Your task to perform on an android device: delete the emails in spam in the gmail app Image 0: 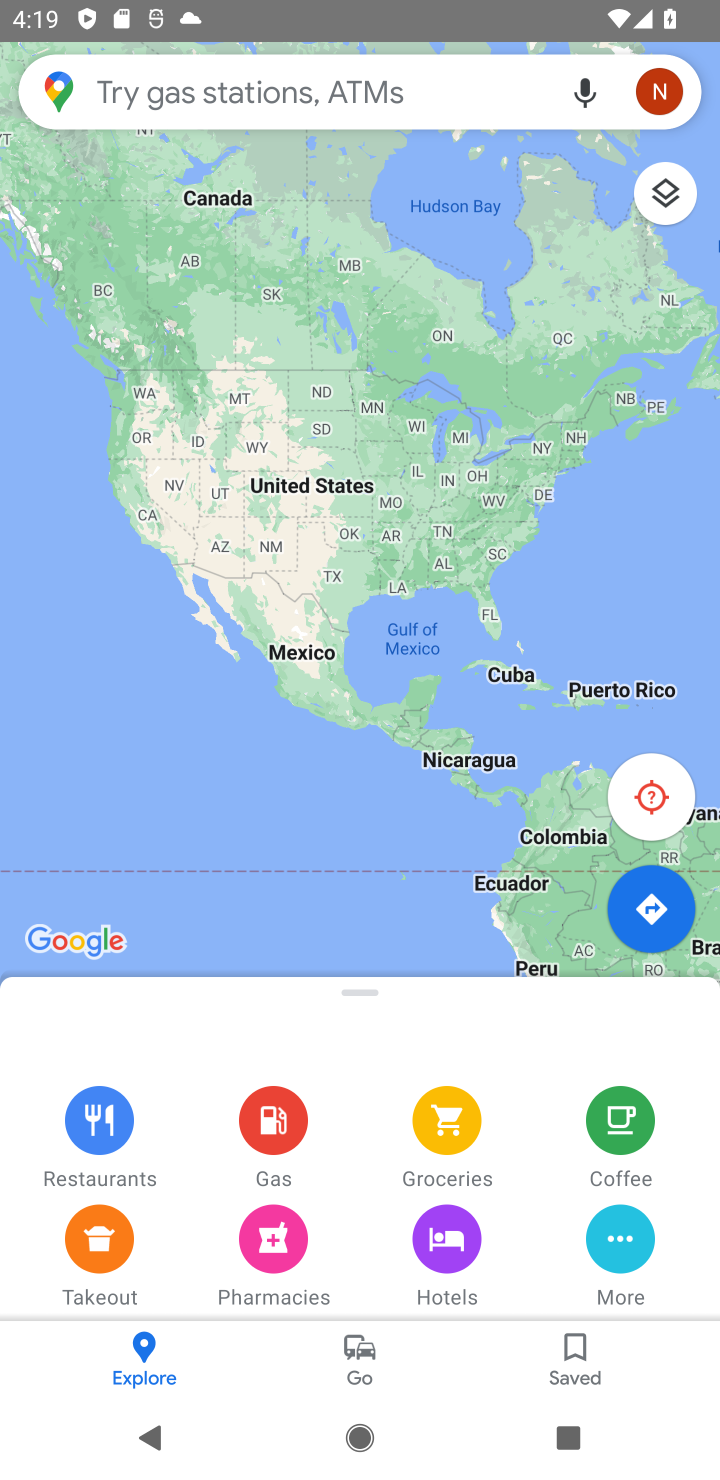
Step 0: press home button
Your task to perform on an android device: delete the emails in spam in the gmail app Image 1: 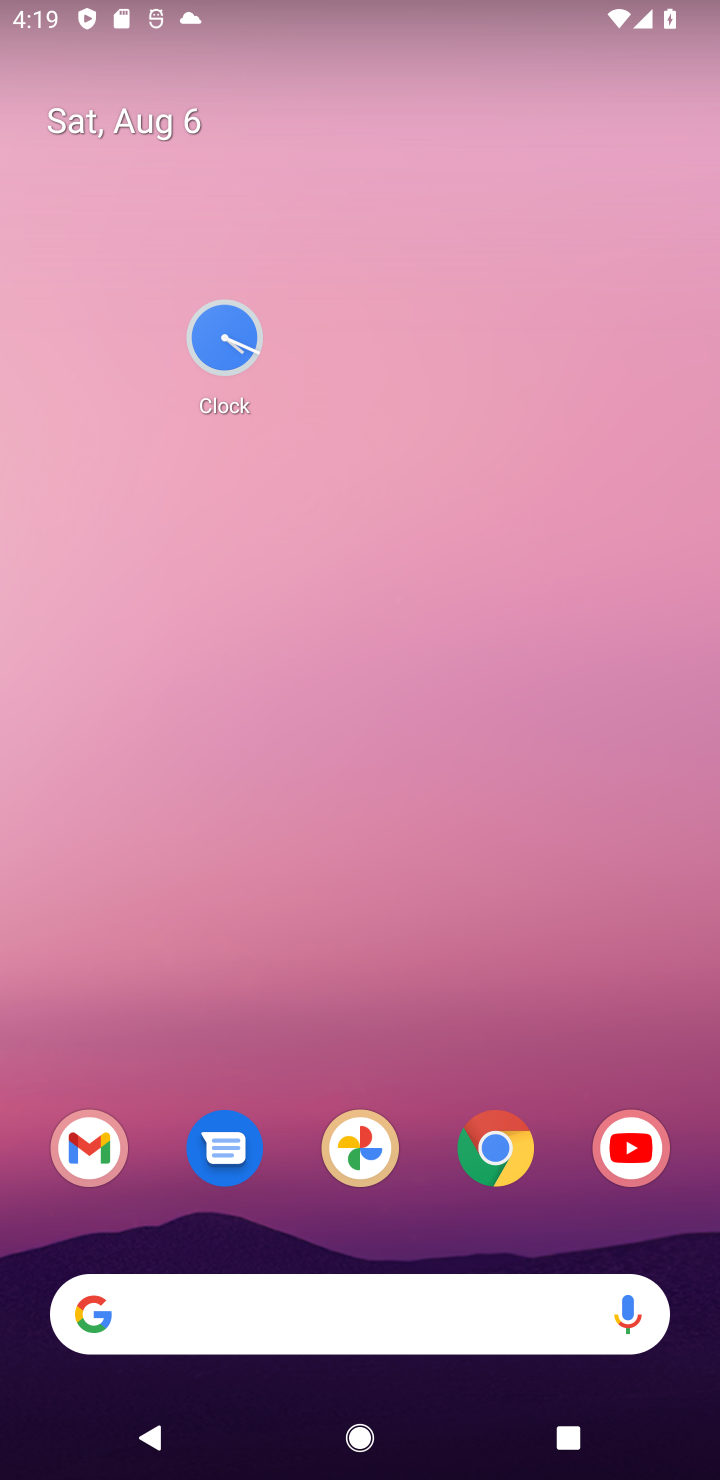
Step 1: drag from (361, 1172) to (421, 11)
Your task to perform on an android device: delete the emails in spam in the gmail app Image 2: 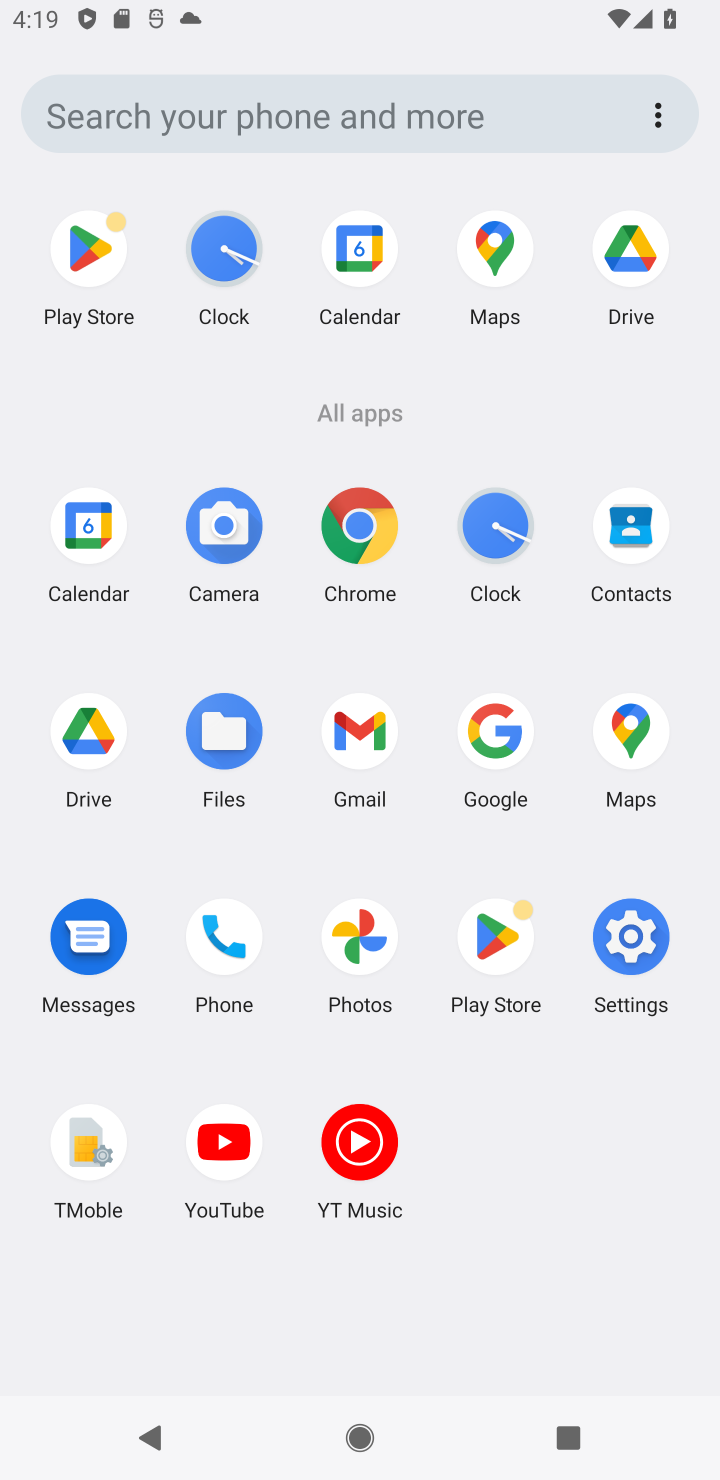
Step 2: click (346, 732)
Your task to perform on an android device: delete the emails in spam in the gmail app Image 3: 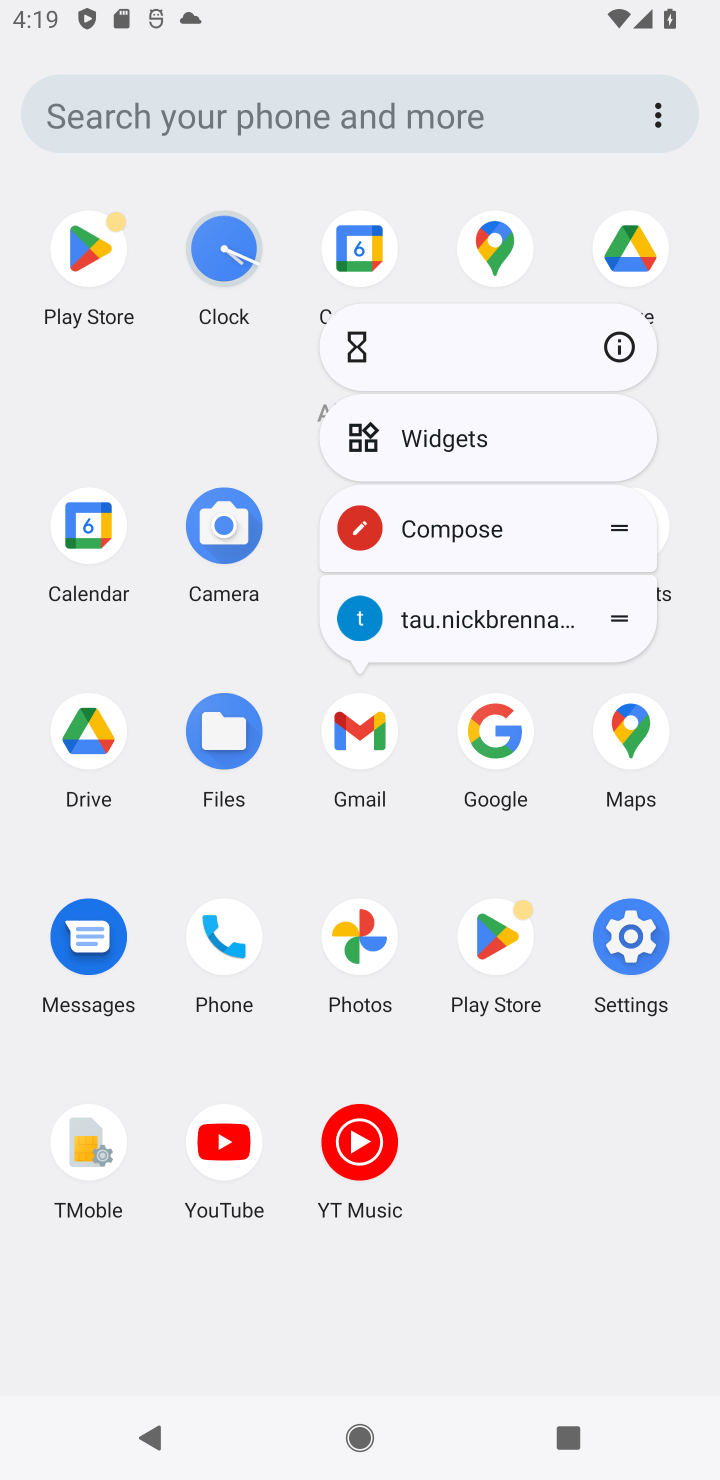
Step 3: click (616, 335)
Your task to perform on an android device: delete the emails in spam in the gmail app Image 4: 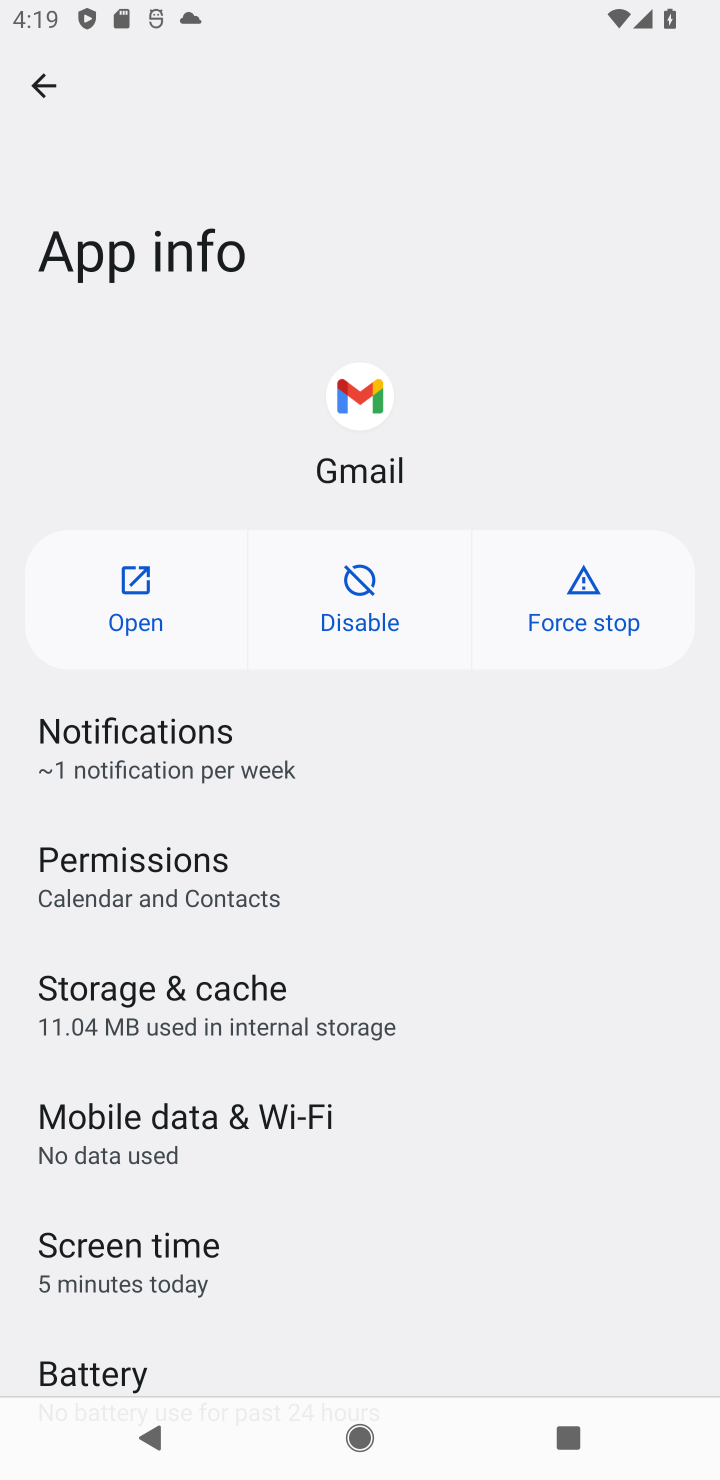
Step 4: click (123, 586)
Your task to perform on an android device: delete the emails in spam in the gmail app Image 5: 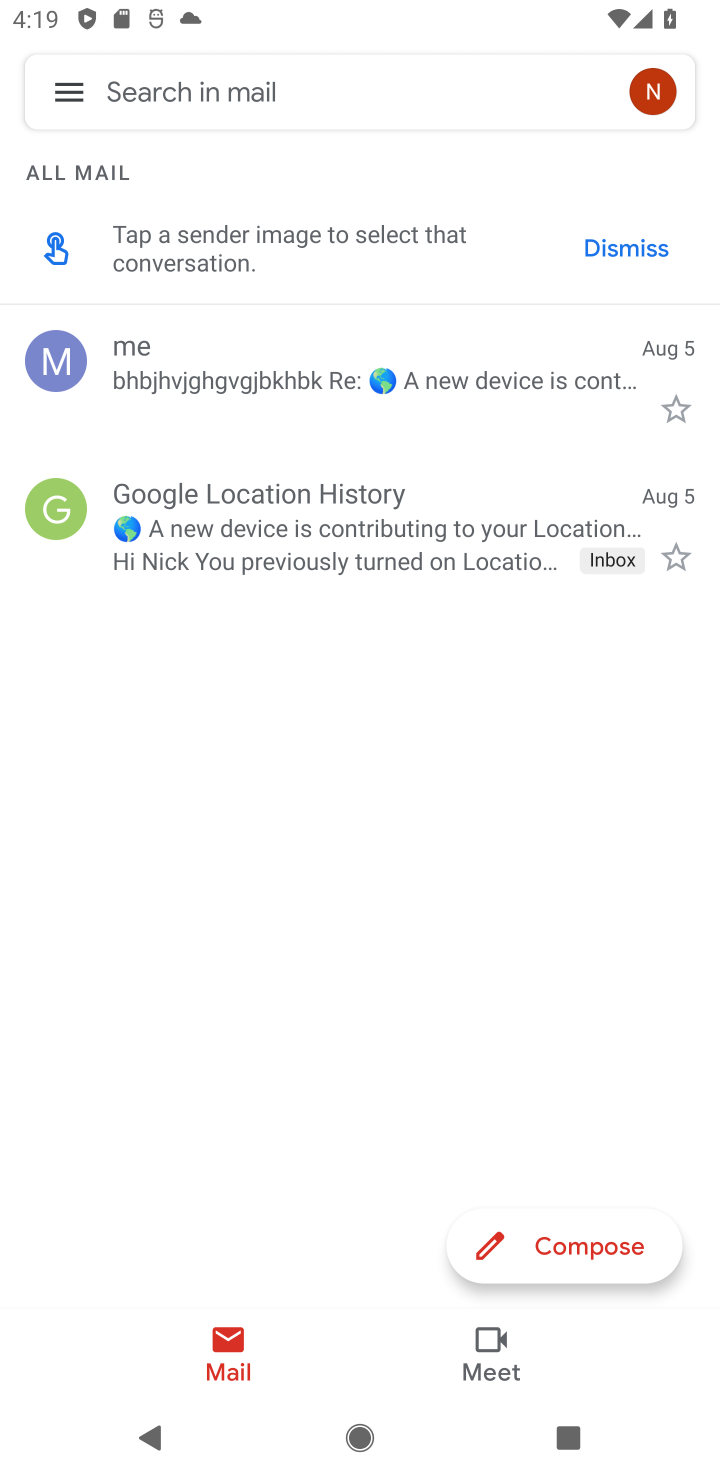
Step 5: click (67, 85)
Your task to perform on an android device: delete the emails in spam in the gmail app Image 6: 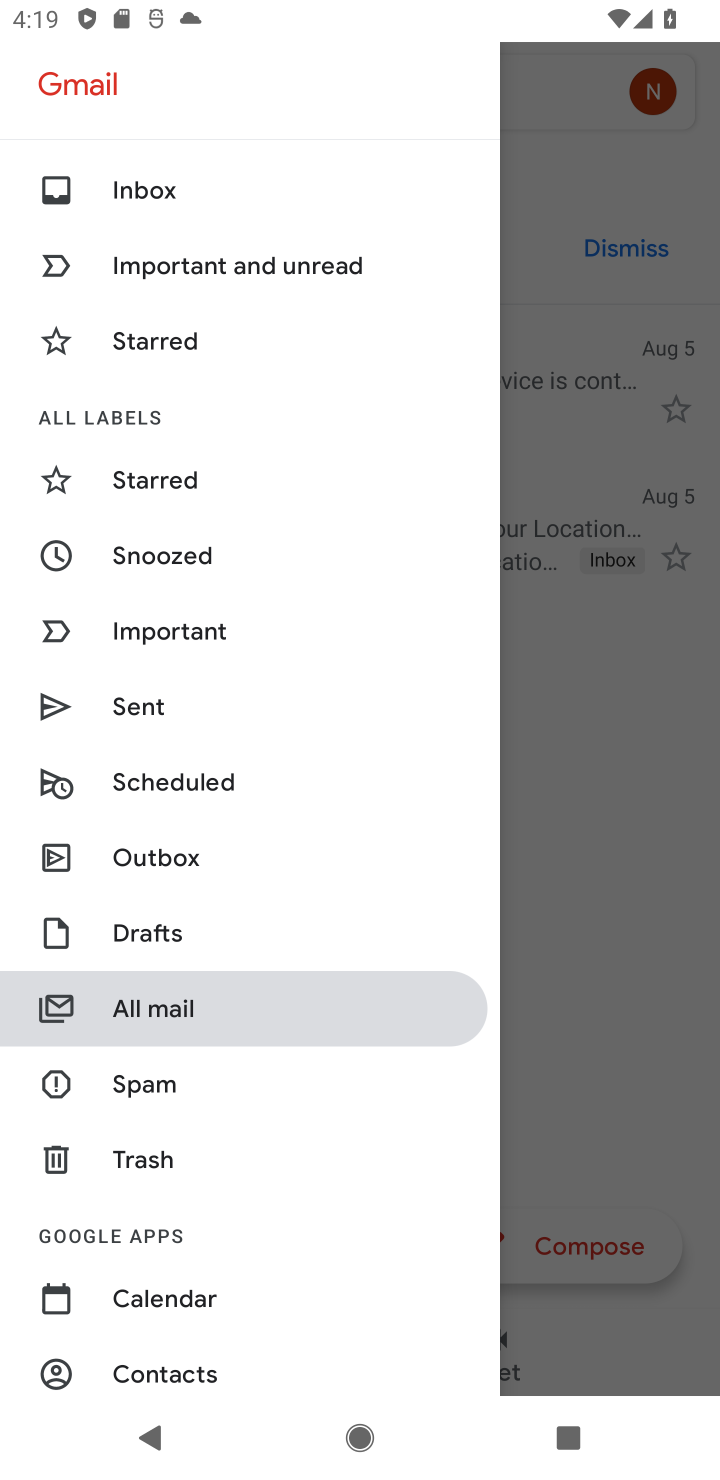
Step 6: click (168, 182)
Your task to perform on an android device: delete the emails in spam in the gmail app Image 7: 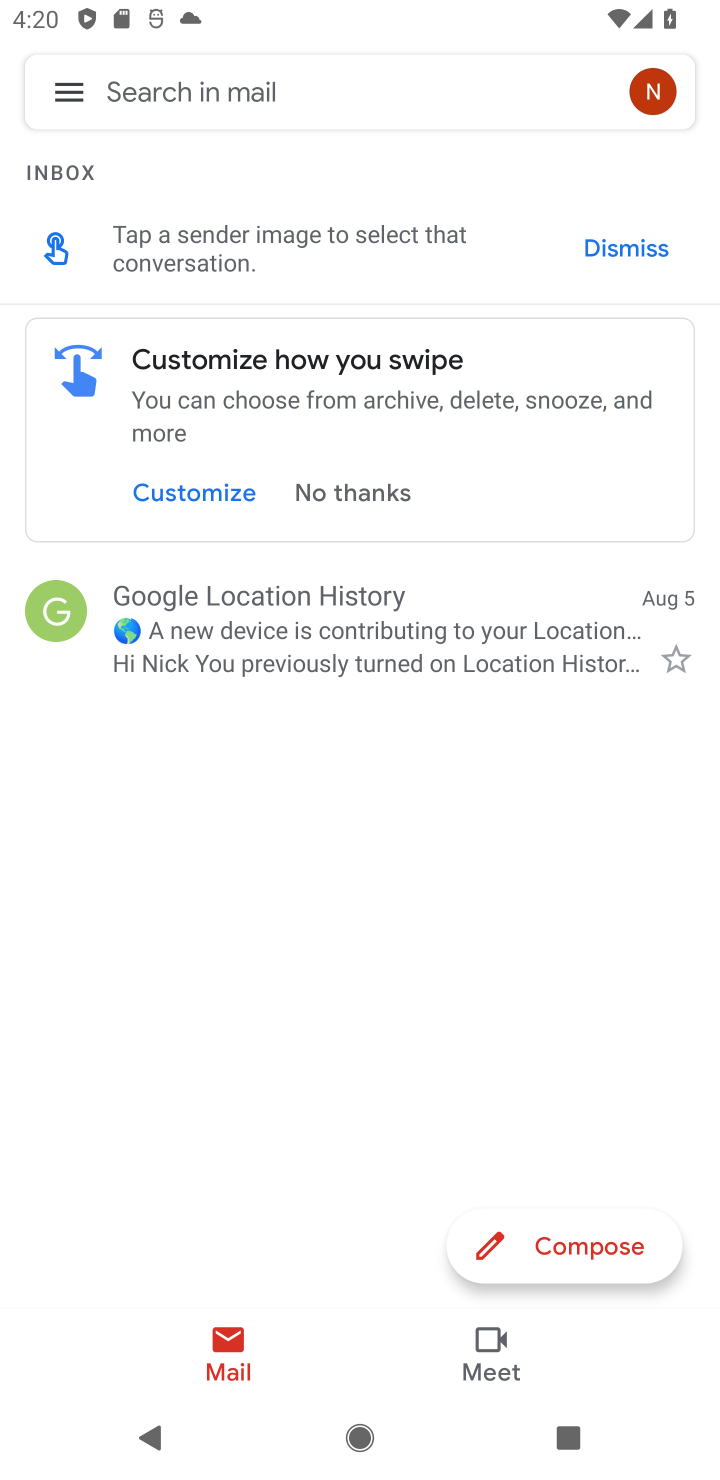
Step 7: click (59, 112)
Your task to perform on an android device: delete the emails in spam in the gmail app Image 8: 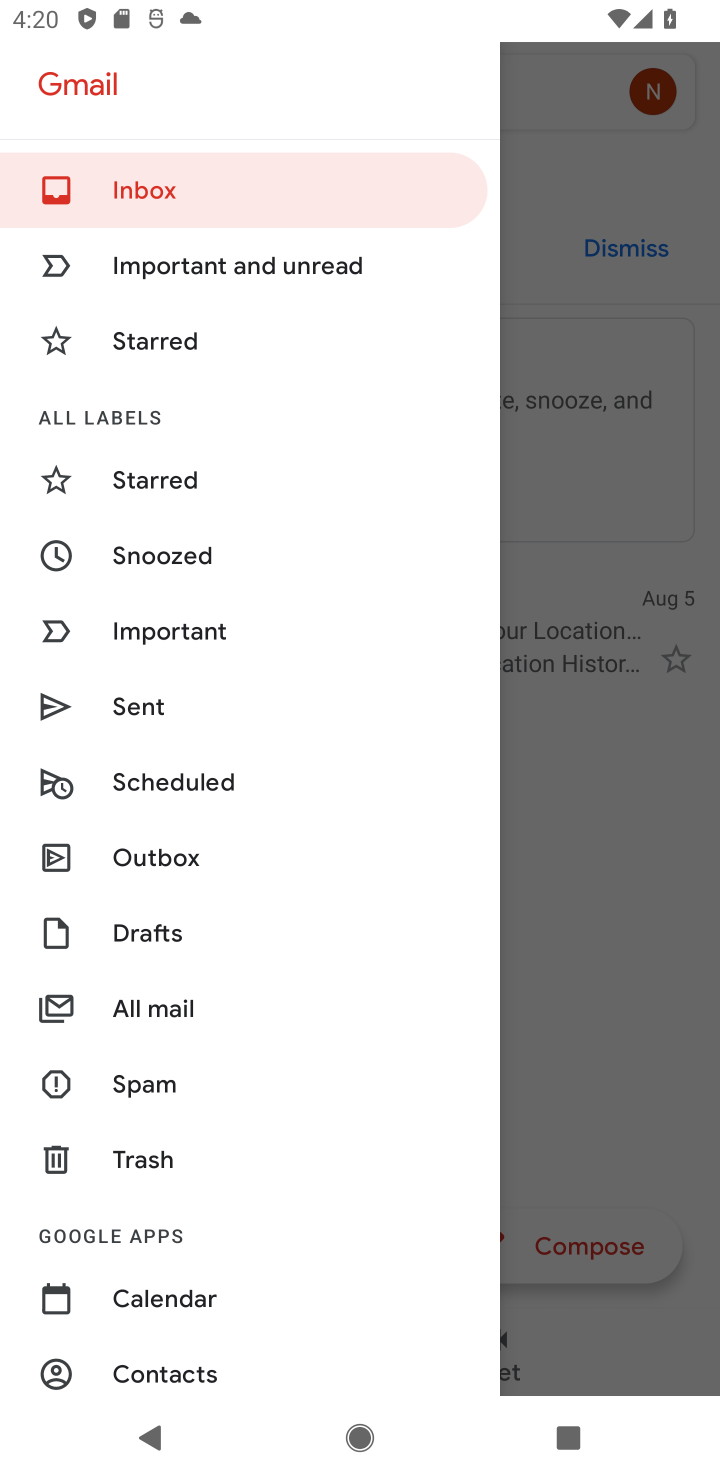
Step 8: click (115, 1089)
Your task to perform on an android device: delete the emails in spam in the gmail app Image 9: 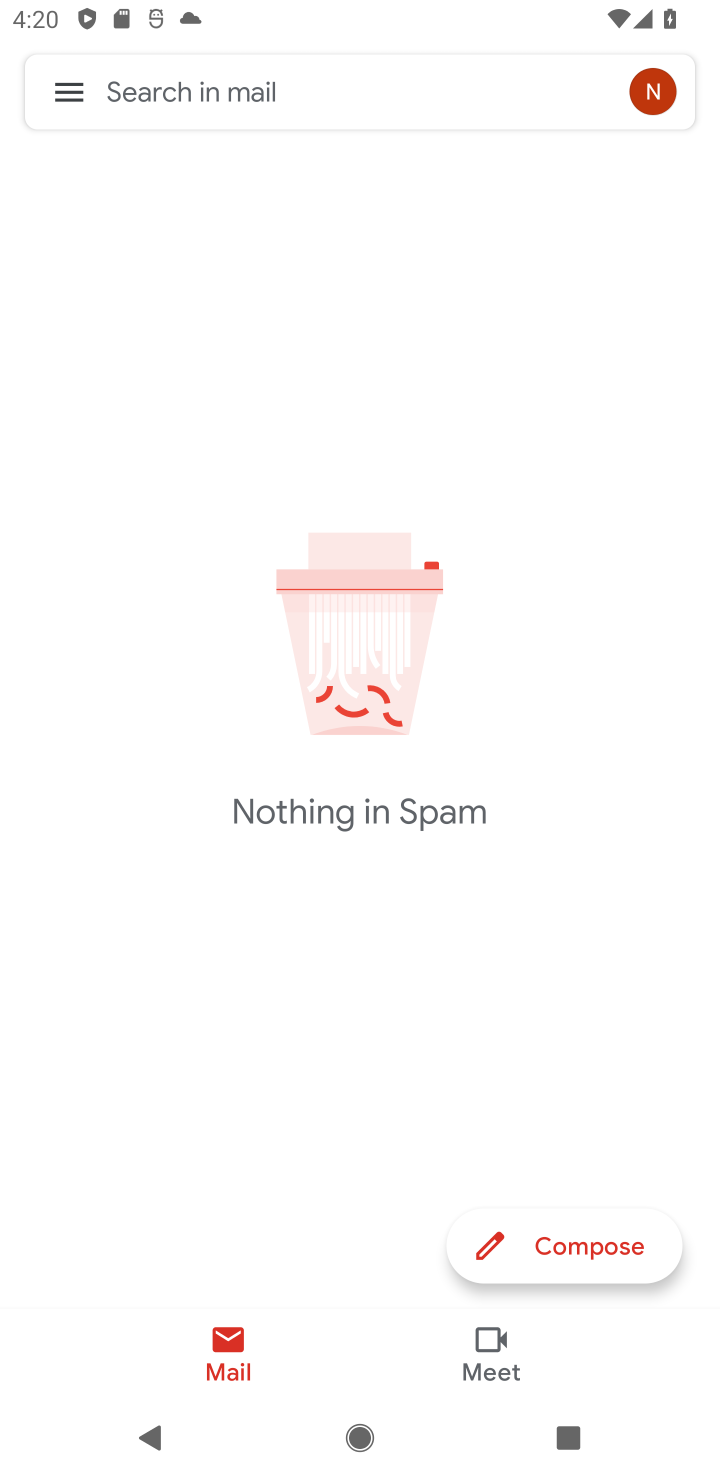
Step 9: task complete